Your task to perform on an android device: Is it going to rain today? Image 0: 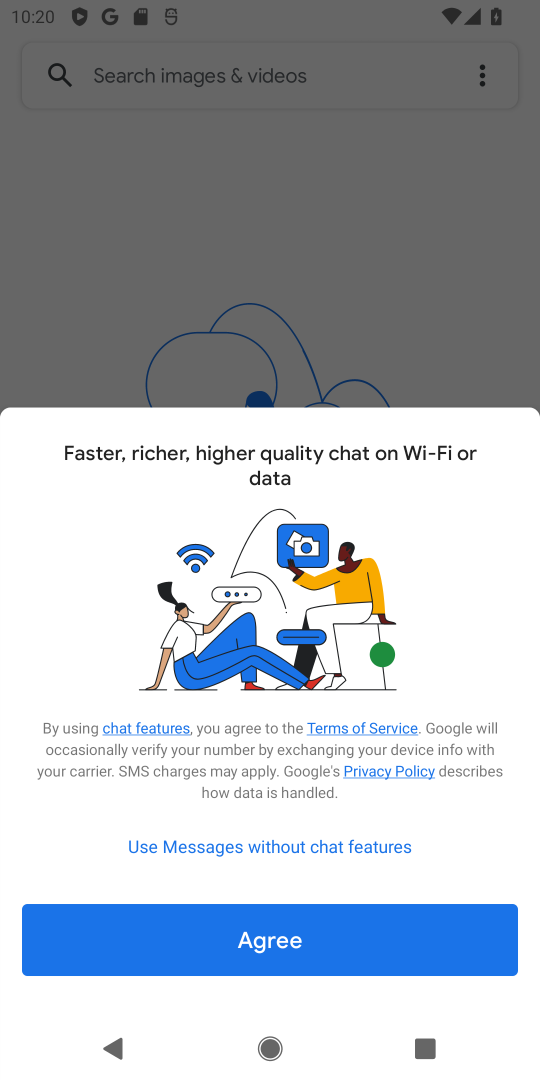
Step 0: press home button
Your task to perform on an android device: Is it going to rain today? Image 1: 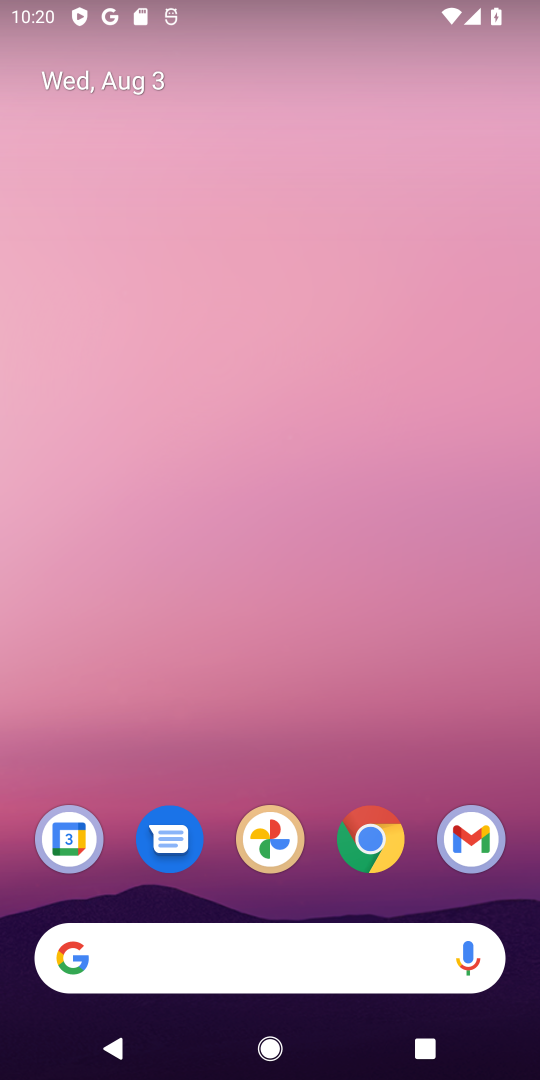
Step 1: click (232, 932)
Your task to perform on an android device: Is it going to rain today? Image 2: 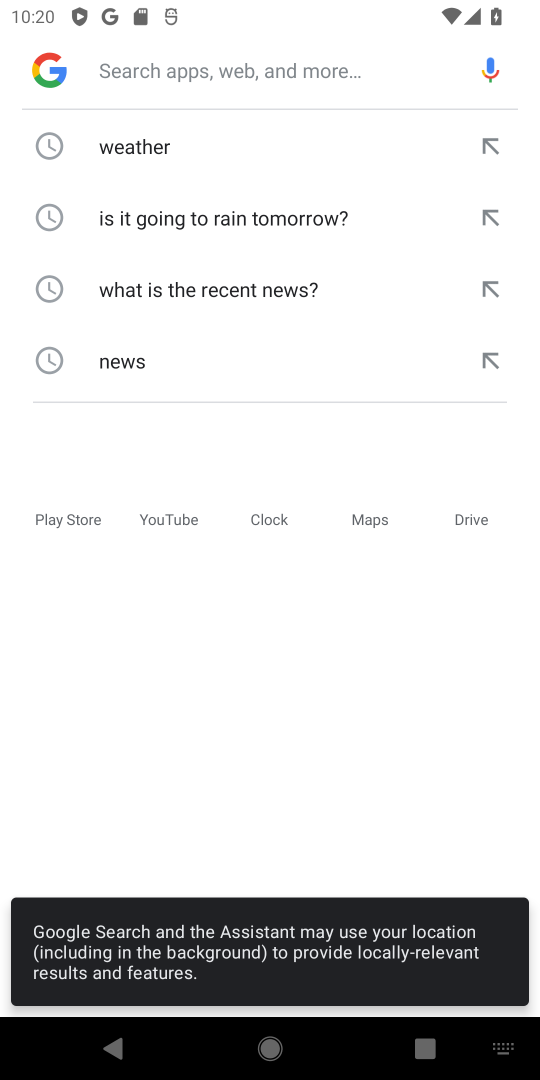
Step 2: click (185, 149)
Your task to perform on an android device: Is it going to rain today? Image 3: 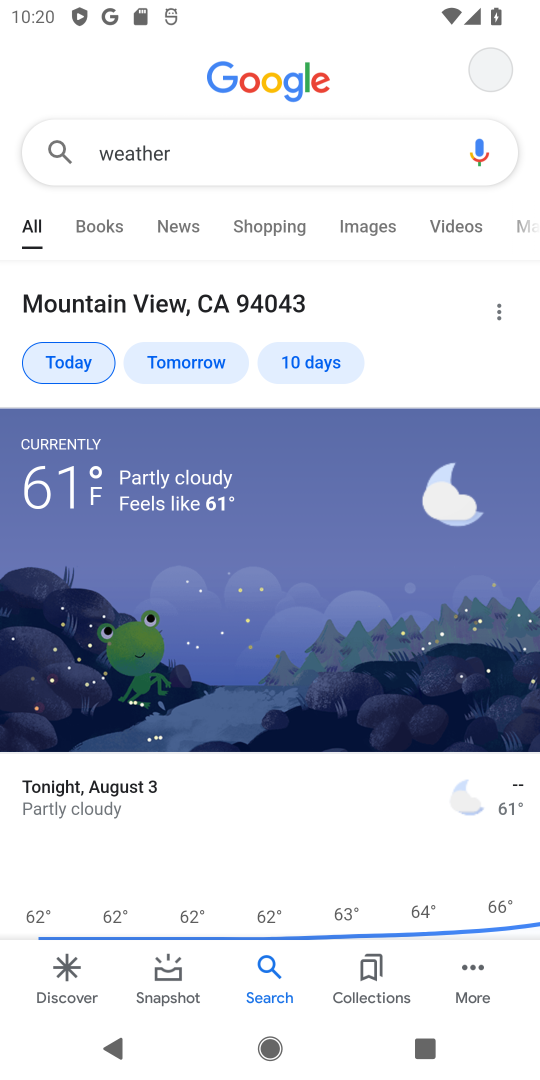
Step 3: task complete